Your task to perform on an android device: star an email in the gmail app Image 0: 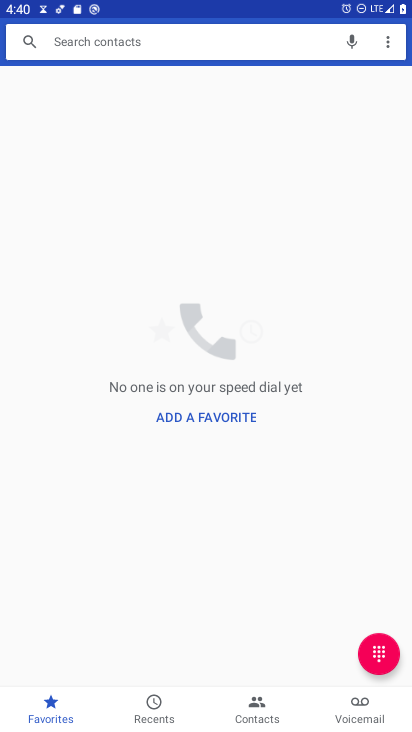
Step 0: press home button
Your task to perform on an android device: star an email in the gmail app Image 1: 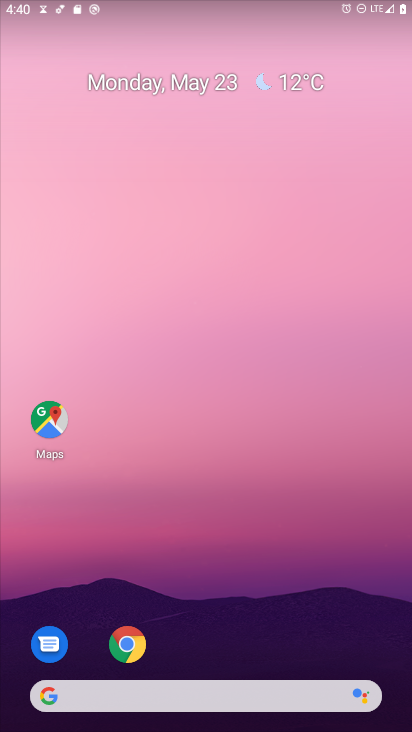
Step 1: drag from (218, 629) to (160, 299)
Your task to perform on an android device: star an email in the gmail app Image 2: 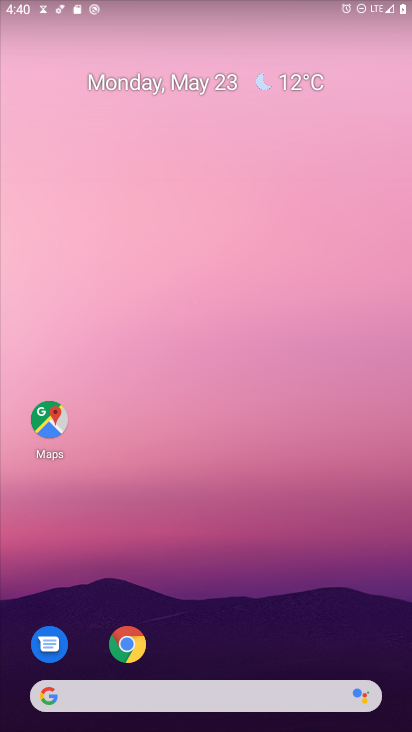
Step 2: drag from (232, 641) to (176, 302)
Your task to perform on an android device: star an email in the gmail app Image 3: 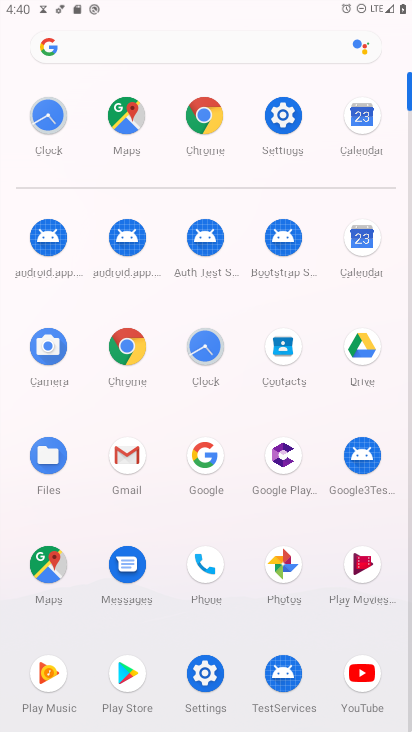
Step 3: click (135, 476)
Your task to perform on an android device: star an email in the gmail app Image 4: 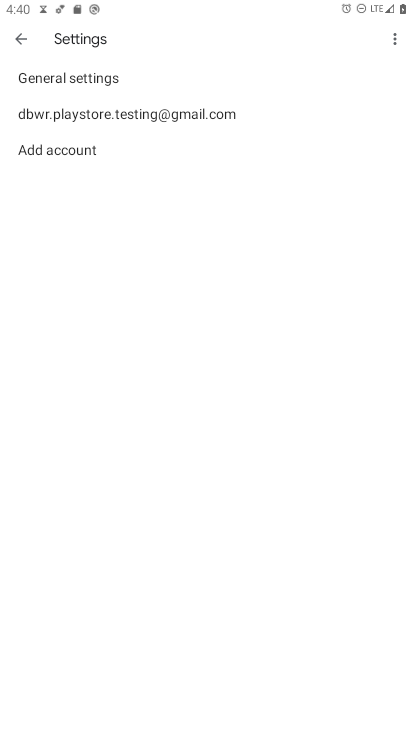
Step 4: click (27, 42)
Your task to perform on an android device: star an email in the gmail app Image 5: 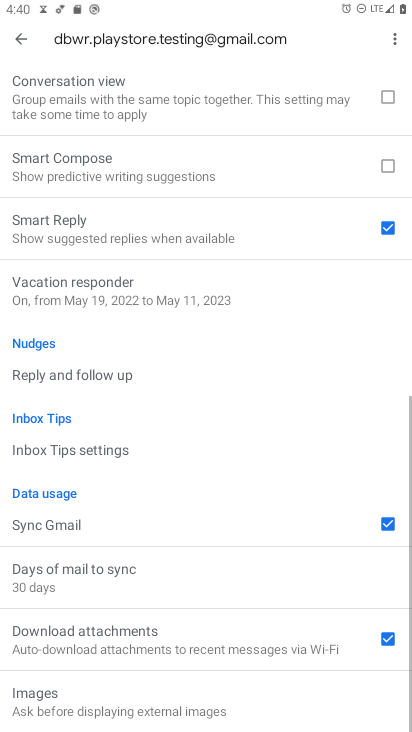
Step 5: click (27, 42)
Your task to perform on an android device: star an email in the gmail app Image 6: 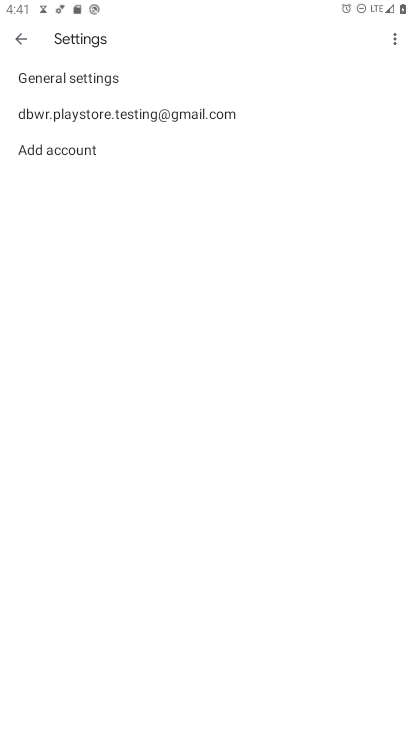
Step 6: click (27, 42)
Your task to perform on an android device: star an email in the gmail app Image 7: 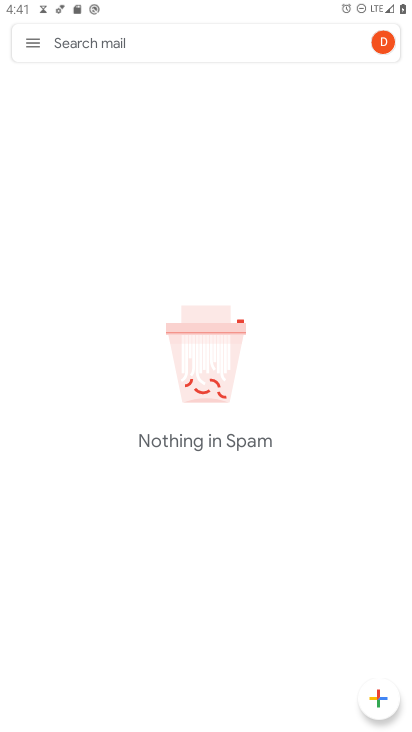
Step 7: click (30, 44)
Your task to perform on an android device: star an email in the gmail app Image 8: 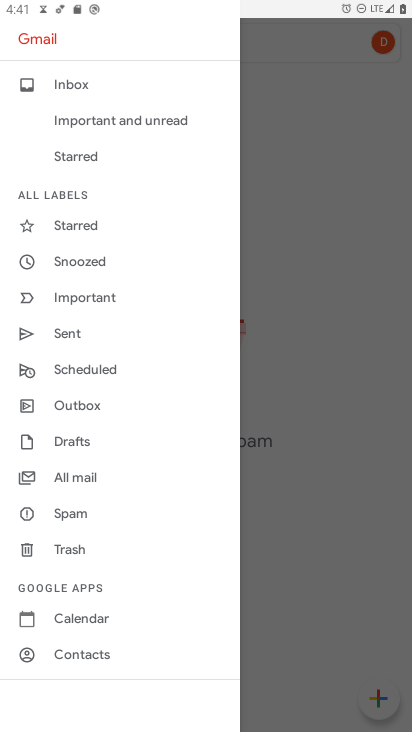
Step 8: click (72, 72)
Your task to perform on an android device: star an email in the gmail app Image 9: 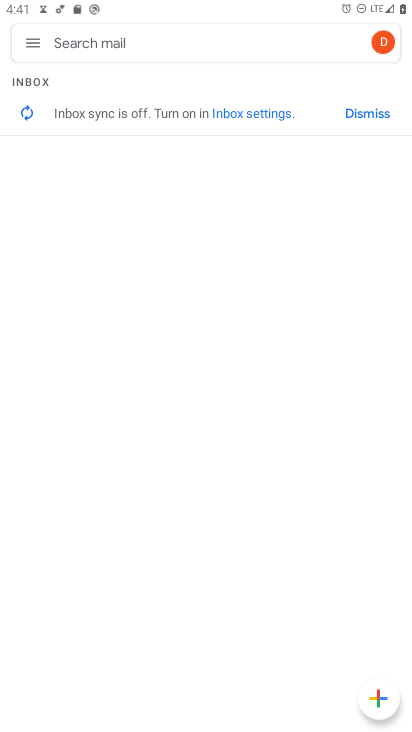
Step 9: task complete